Your task to perform on an android device: Open ESPN.com Image 0: 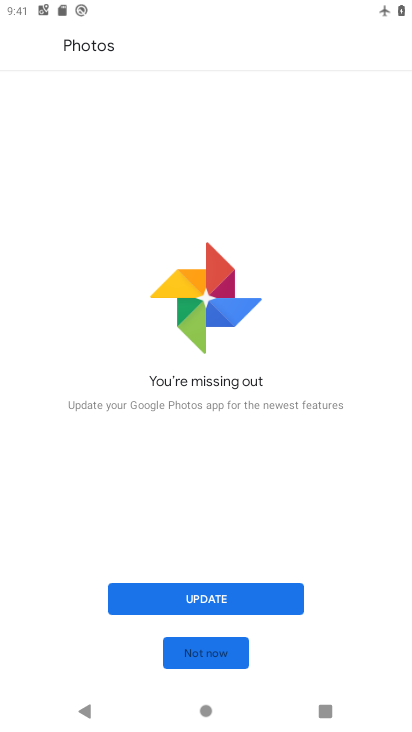
Step 0: press home button
Your task to perform on an android device: Open ESPN.com Image 1: 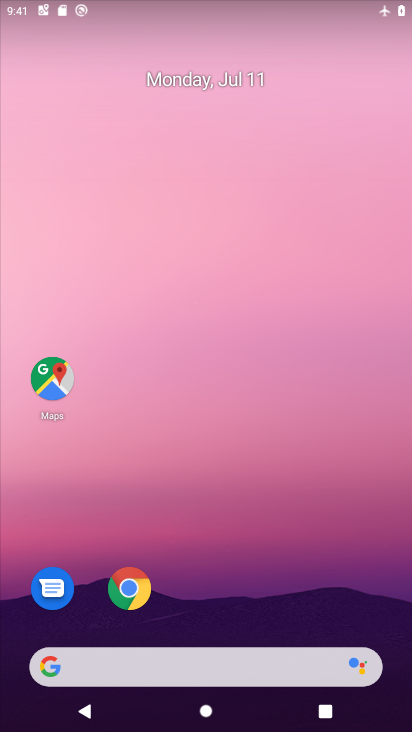
Step 1: drag from (194, 598) to (189, 266)
Your task to perform on an android device: Open ESPN.com Image 2: 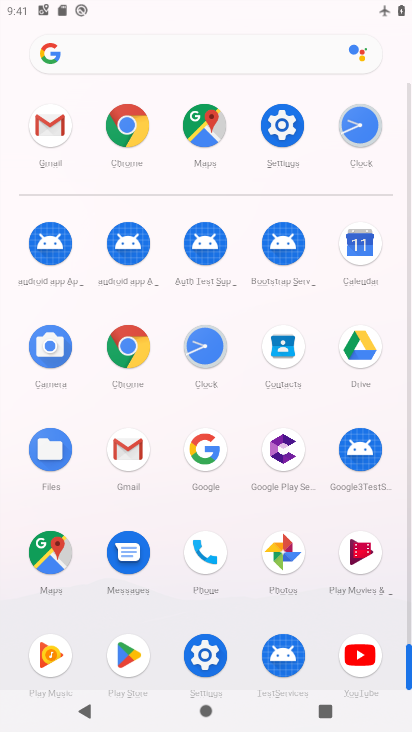
Step 2: click (128, 116)
Your task to perform on an android device: Open ESPN.com Image 3: 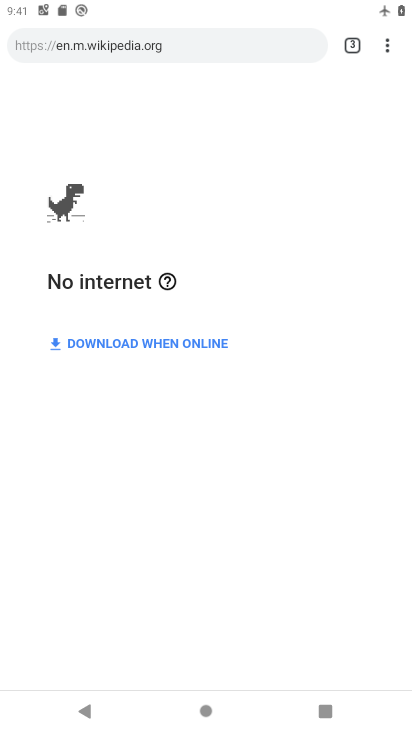
Step 3: click (386, 38)
Your task to perform on an android device: Open ESPN.com Image 4: 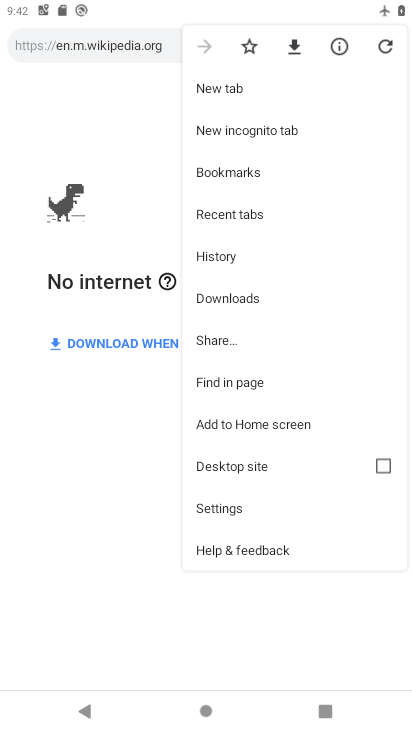
Step 4: click (269, 87)
Your task to perform on an android device: Open ESPN.com Image 5: 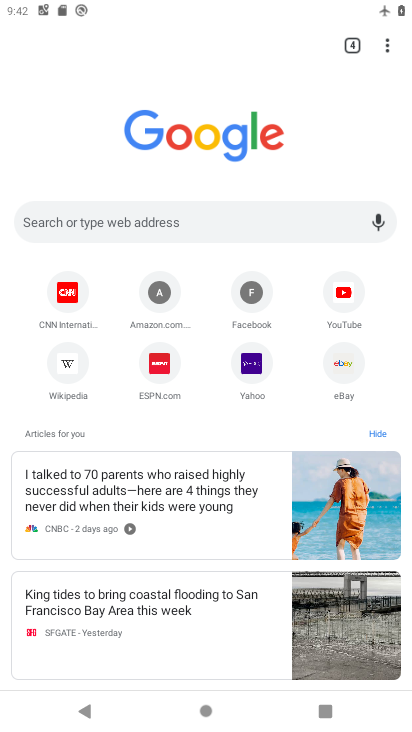
Step 5: click (168, 372)
Your task to perform on an android device: Open ESPN.com Image 6: 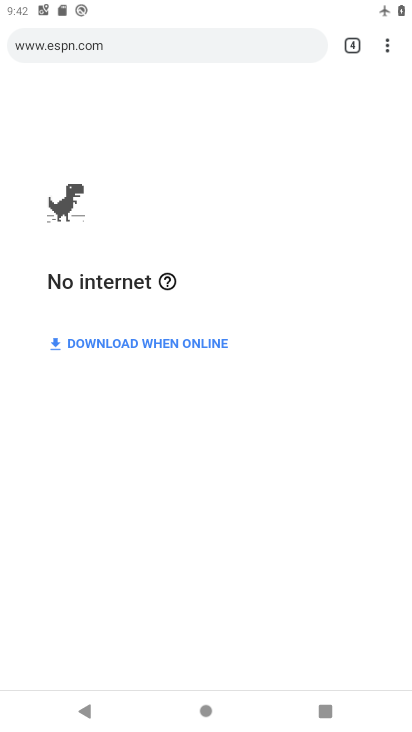
Step 6: task complete